Your task to perform on an android device: move an email to a new category in the gmail app Image 0: 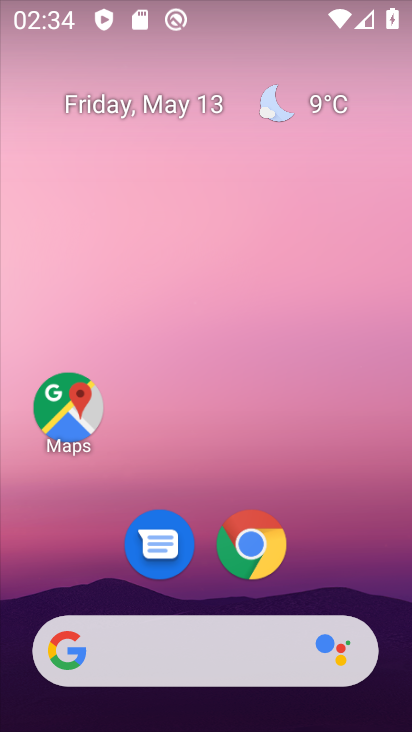
Step 0: drag from (330, 540) to (256, 43)
Your task to perform on an android device: move an email to a new category in the gmail app Image 1: 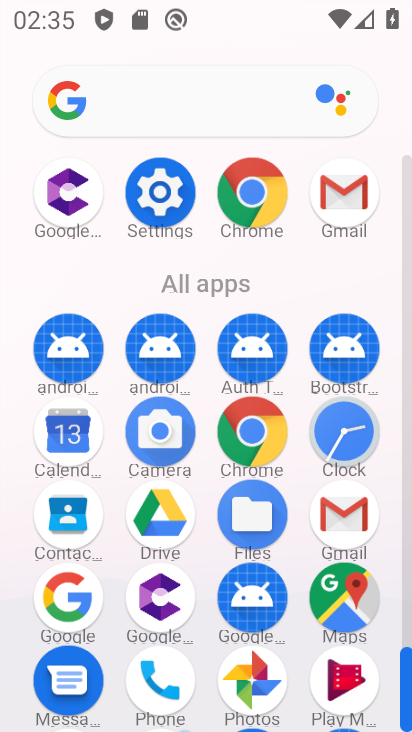
Step 1: drag from (14, 516) to (20, 228)
Your task to perform on an android device: move an email to a new category in the gmail app Image 2: 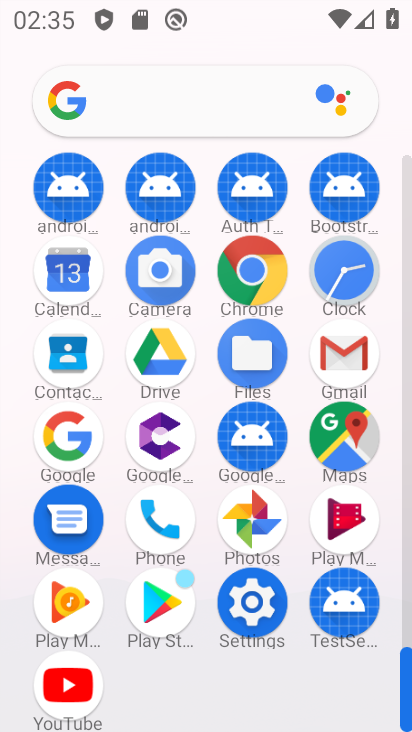
Step 2: click (340, 351)
Your task to perform on an android device: move an email to a new category in the gmail app Image 3: 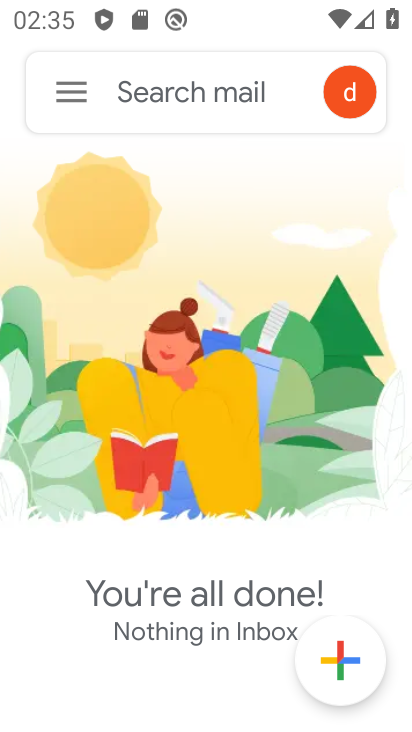
Step 3: click (49, 95)
Your task to perform on an android device: move an email to a new category in the gmail app Image 4: 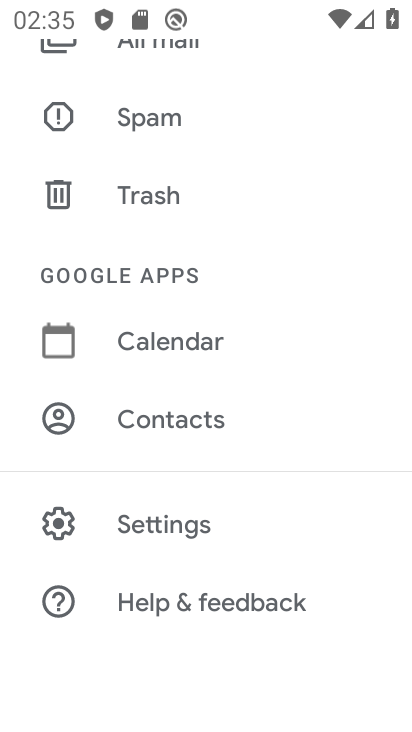
Step 4: drag from (250, 149) to (286, 424)
Your task to perform on an android device: move an email to a new category in the gmail app Image 5: 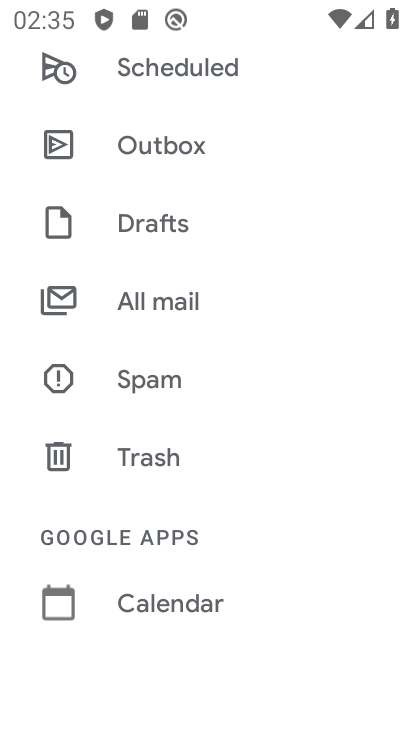
Step 5: click (162, 311)
Your task to perform on an android device: move an email to a new category in the gmail app Image 6: 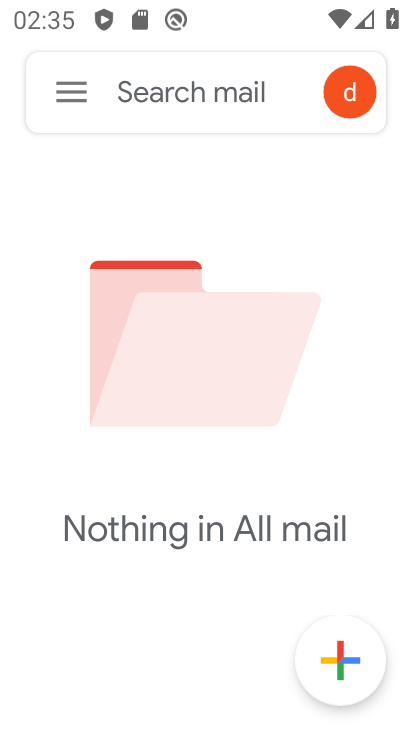
Step 6: click (75, 81)
Your task to perform on an android device: move an email to a new category in the gmail app Image 7: 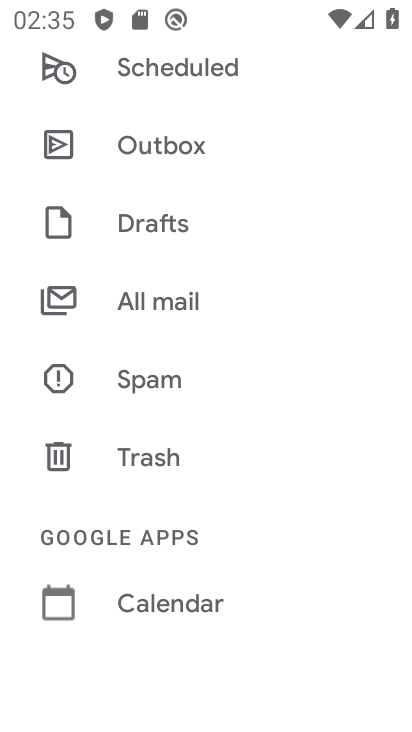
Step 7: drag from (276, 193) to (341, 529)
Your task to perform on an android device: move an email to a new category in the gmail app Image 8: 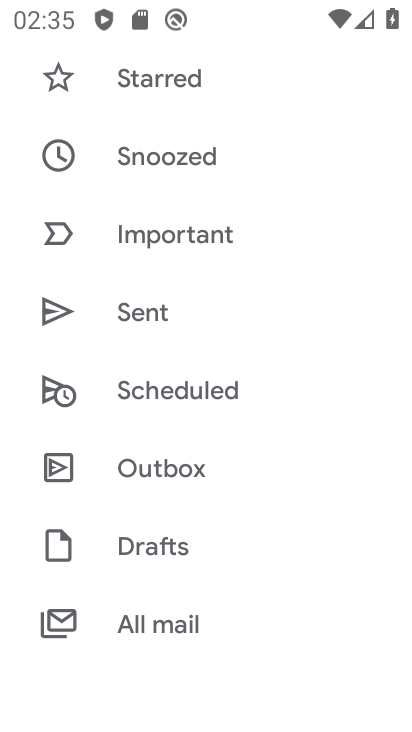
Step 8: drag from (246, 141) to (277, 588)
Your task to perform on an android device: move an email to a new category in the gmail app Image 9: 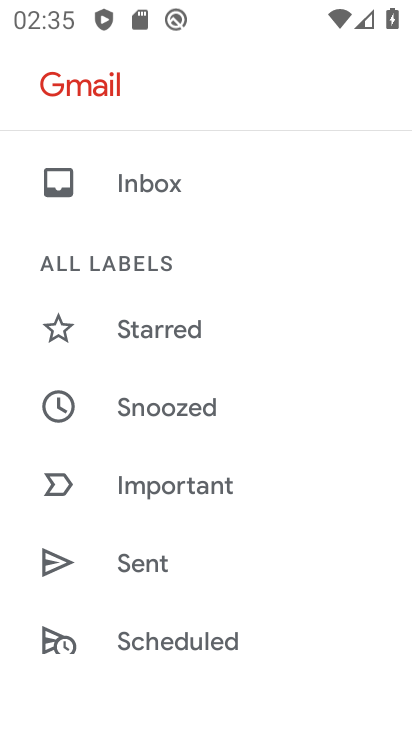
Step 9: click (202, 185)
Your task to perform on an android device: move an email to a new category in the gmail app Image 10: 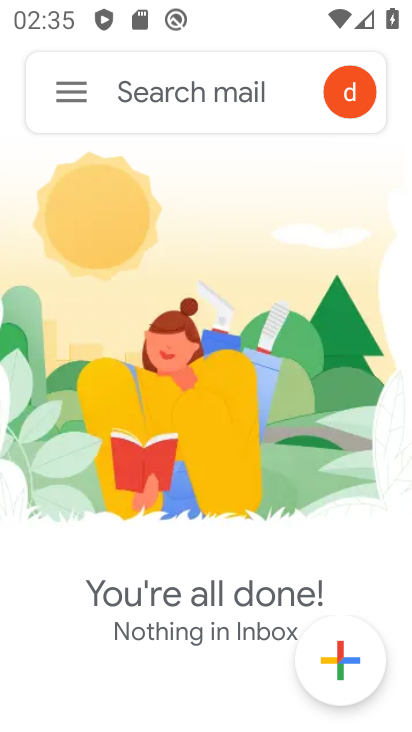
Step 10: task complete